Your task to perform on an android device: Open Chrome and go to the settings page Image 0: 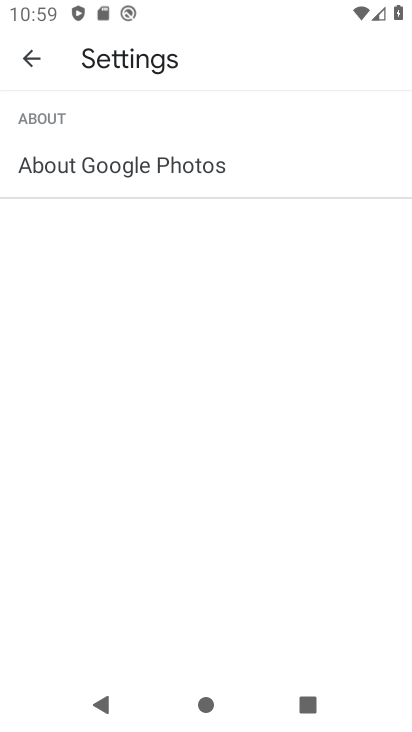
Step 0: press home button
Your task to perform on an android device: Open Chrome and go to the settings page Image 1: 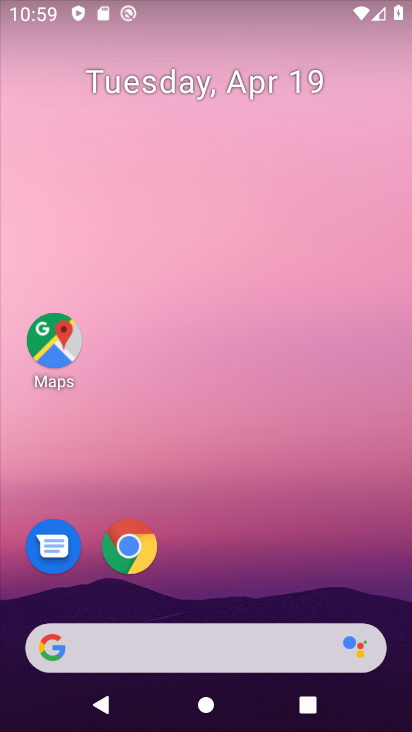
Step 1: click (128, 546)
Your task to perform on an android device: Open Chrome and go to the settings page Image 2: 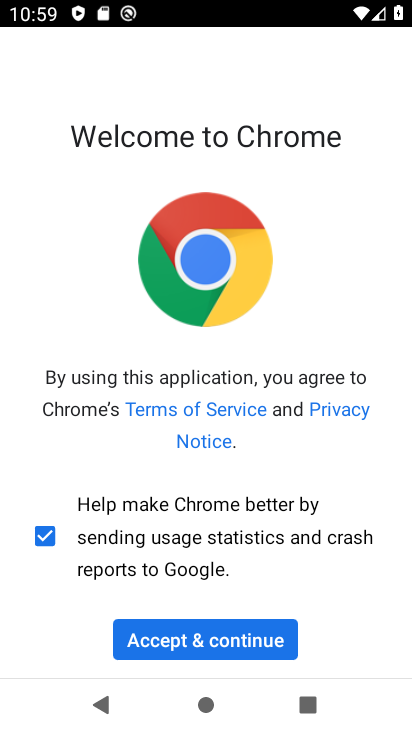
Step 2: click (250, 652)
Your task to perform on an android device: Open Chrome and go to the settings page Image 3: 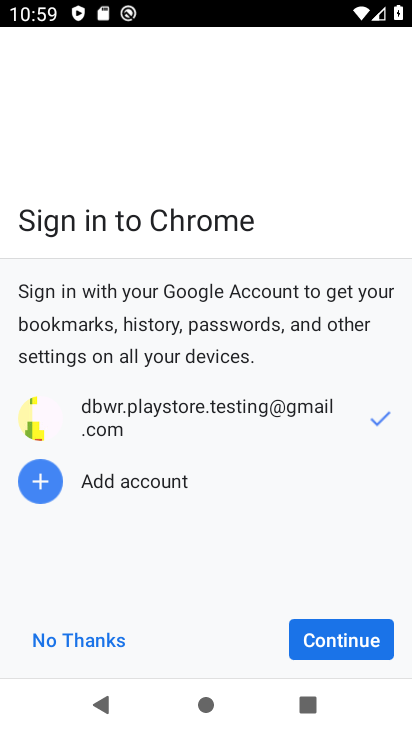
Step 3: click (335, 642)
Your task to perform on an android device: Open Chrome and go to the settings page Image 4: 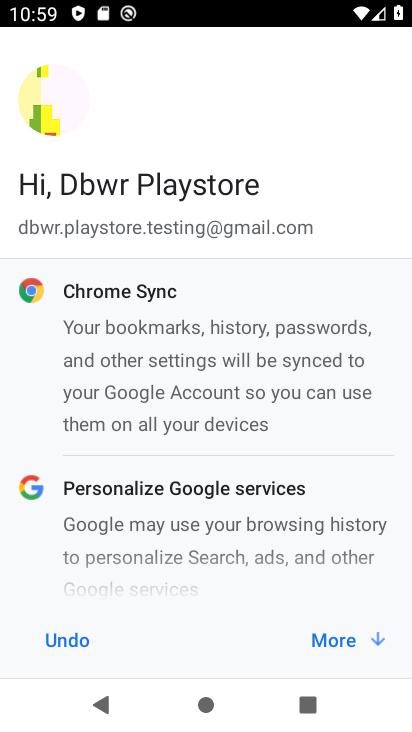
Step 4: click (335, 642)
Your task to perform on an android device: Open Chrome and go to the settings page Image 5: 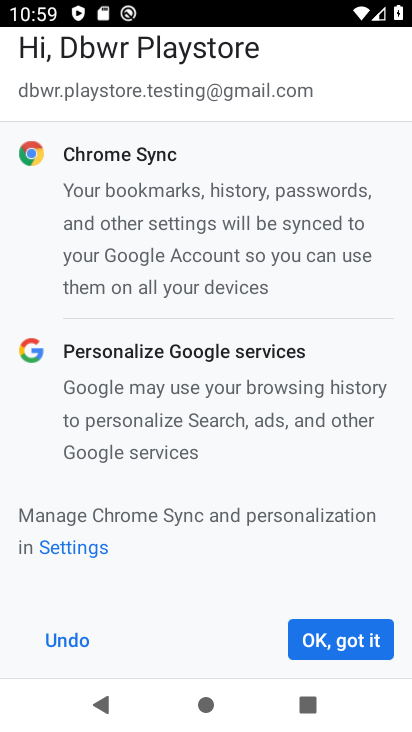
Step 5: click (335, 642)
Your task to perform on an android device: Open Chrome and go to the settings page Image 6: 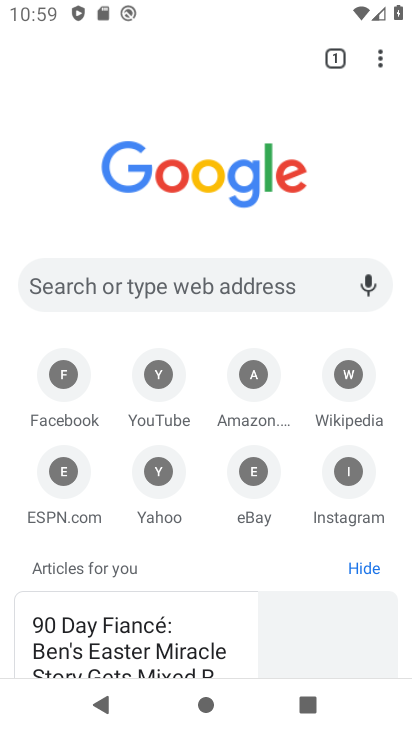
Step 6: click (378, 59)
Your task to perform on an android device: Open Chrome and go to the settings page Image 7: 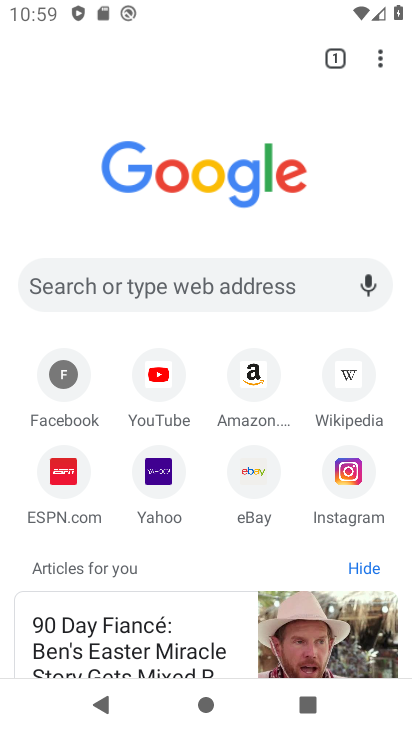
Step 7: click (382, 62)
Your task to perform on an android device: Open Chrome and go to the settings page Image 8: 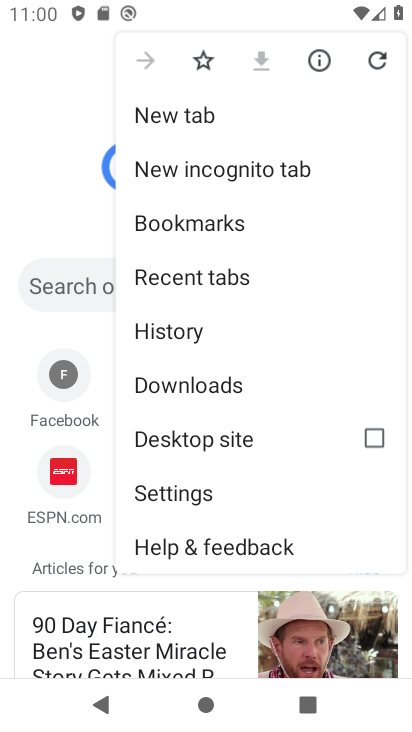
Step 8: click (157, 491)
Your task to perform on an android device: Open Chrome and go to the settings page Image 9: 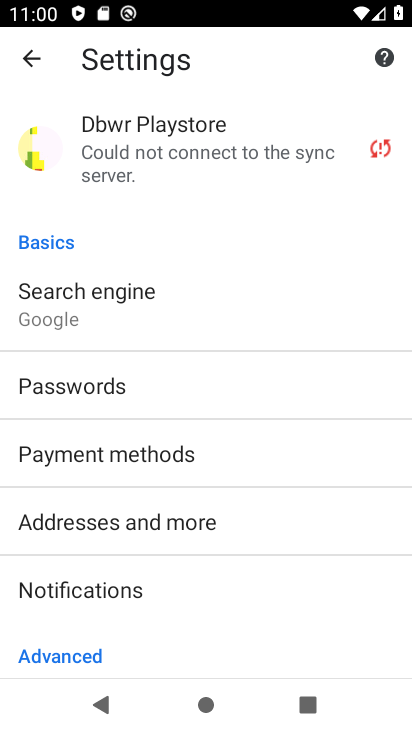
Step 9: task complete